Your task to perform on an android device: turn on wifi Image 0: 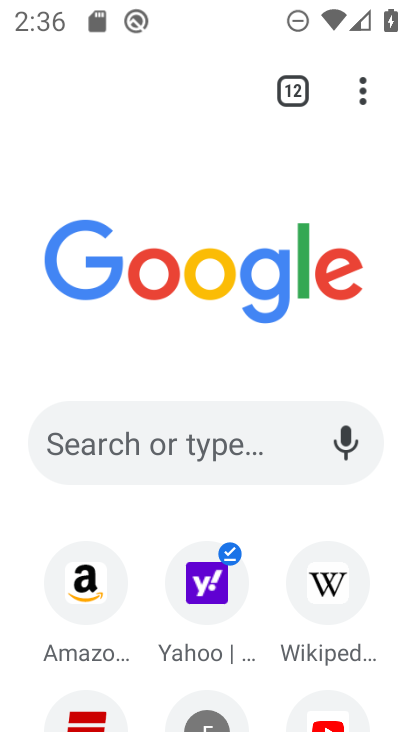
Step 0: press home button
Your task to perform on an android device: turn on wifi Image 1: 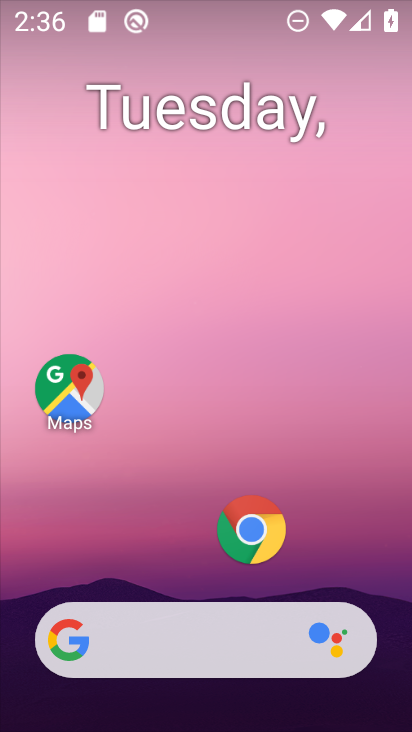
Step 1: drag from (259, 675) to (256, 154)
Your task to perform on an android device: turn on wifi Image 2: 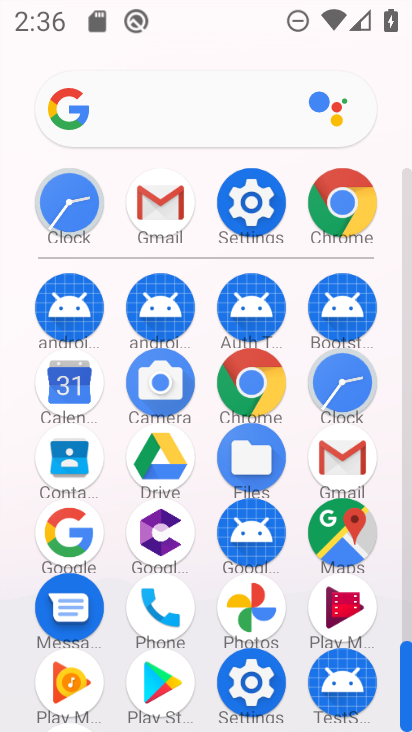
Step 2: click (259, 208)
Your task to perform on an android device: turn on wifi Image 3: 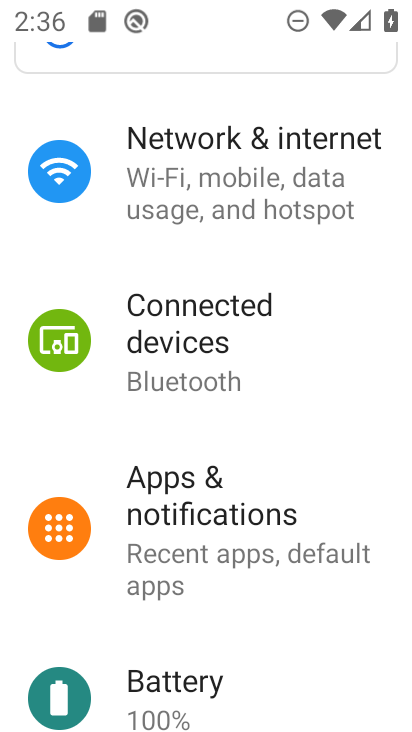
Step 3: click (210, 128)
Your task to perform on an android device: turn on wifi Image 4: 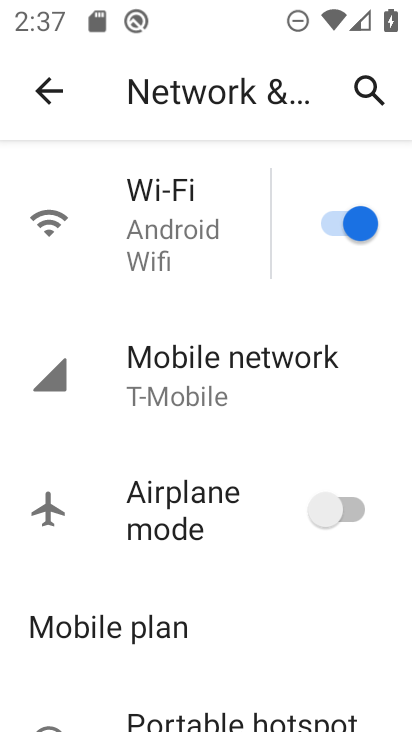
Step 4: task complete